Your task to perform on an android device: delete browsing data in the chrome app Image 0: 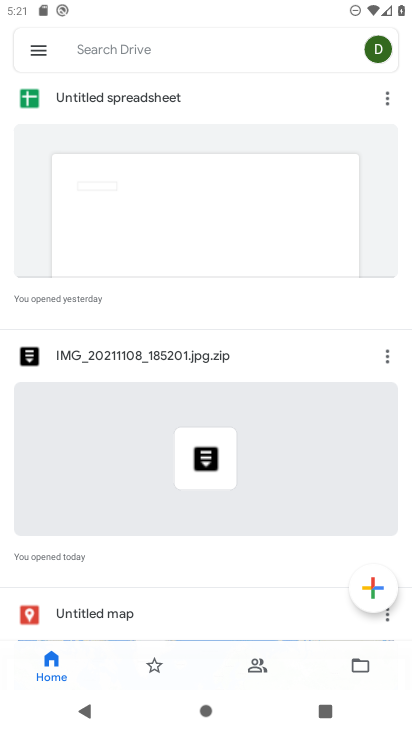
Step 0: press home button
Your task to perform on an android device: delete browsing data in the chrome app Image 1: 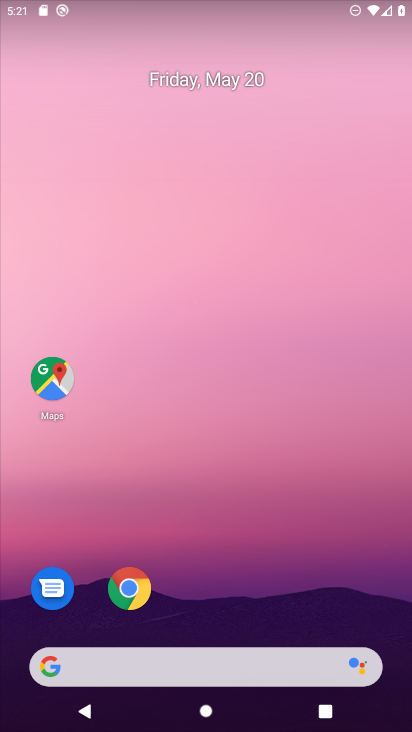
Step 1: click (124, 604)
Your task to perform on an android device: delete browsing data in the chrome app Image 2: 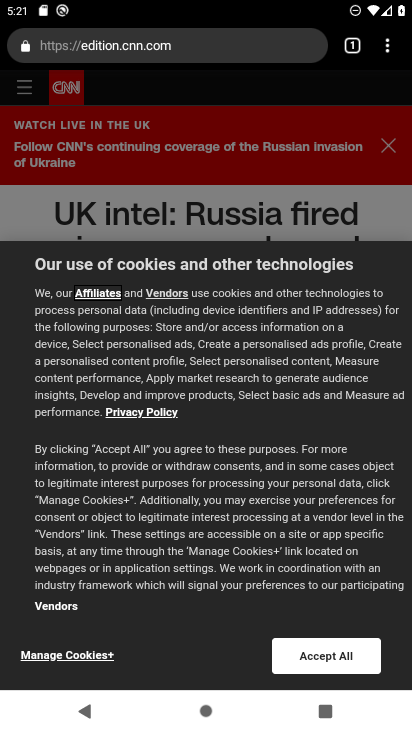
Step 2: click (385, 50)
Your task to perform on an android device: delete browsing data in the chrome app Image 3: 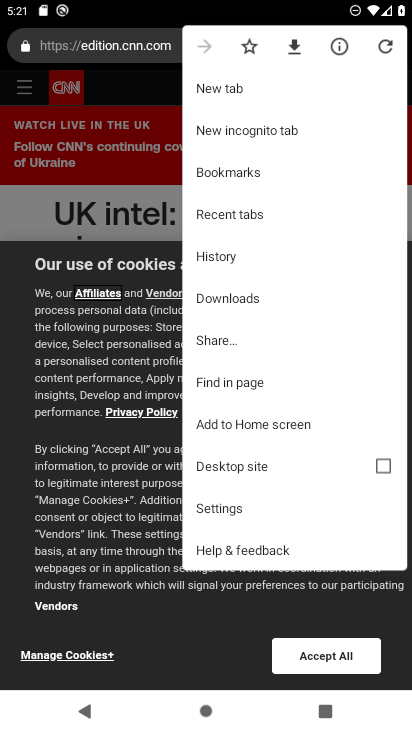
Step 3: click (227, 257)
Your task to perform on an android device: delete browsing data in the chrome app Image 4: 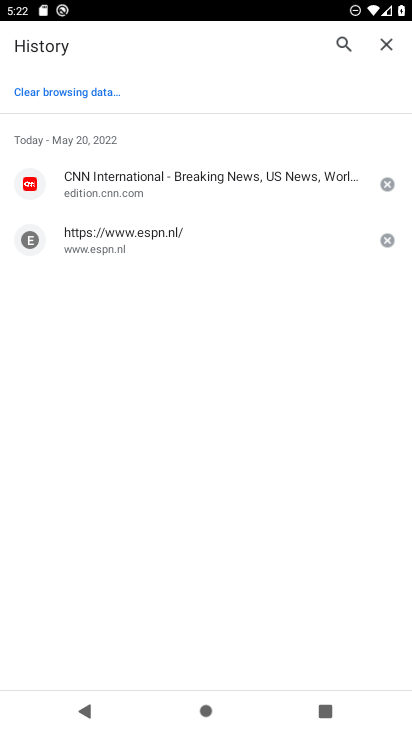
Step 4: click (87, 89)
Your task to perform on an android device: delete browsing data in the chrome app Image 5: 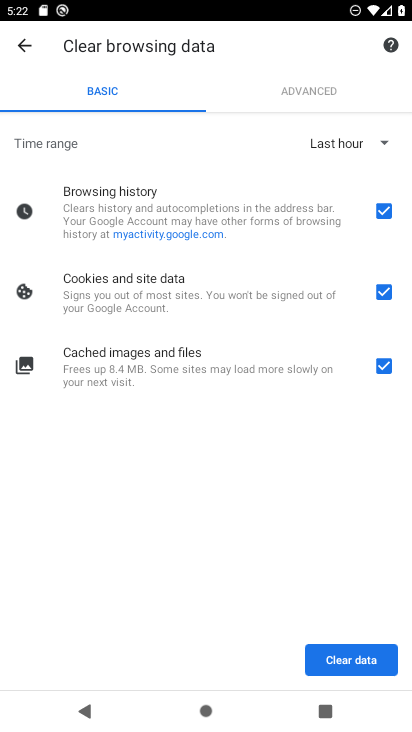
Step 5: click (352, 666)
Your task to perform on an android device: delete browsing data in the chrome app Image 6: 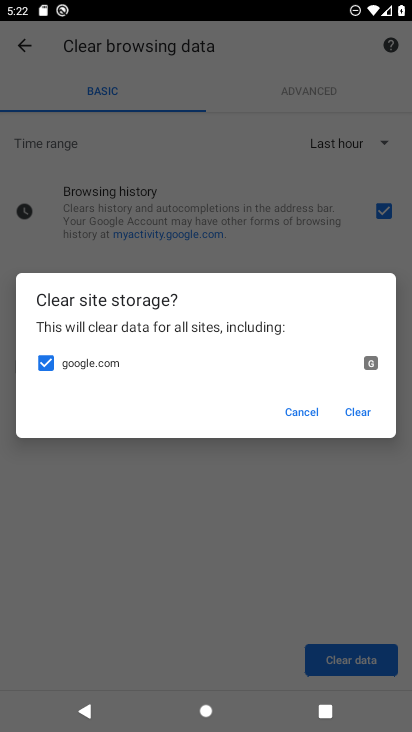
Step 6: click (358, 418)
Your task to perform on an android device: delete browsing data in the chrome app Image 7: 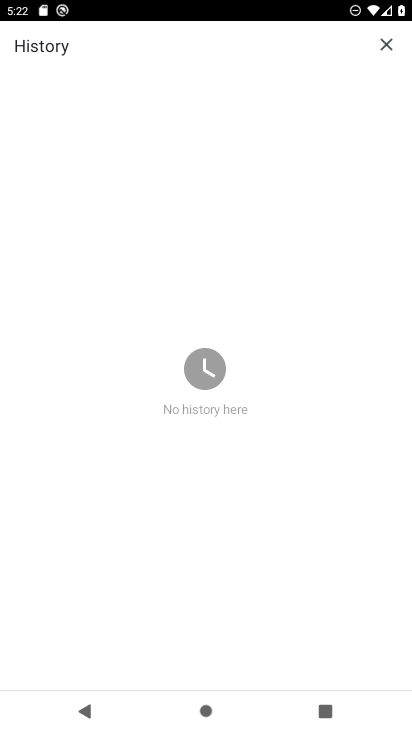
Step 7: task complete